Your task to perform on an android device: Open Google Image 0: 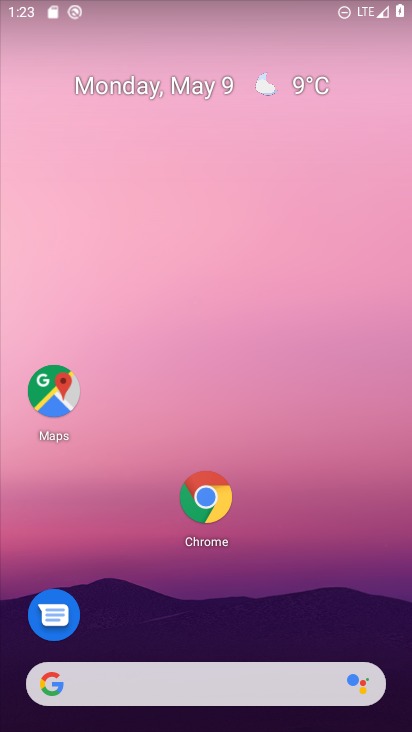
Step 0: drag from (294, 481) to (196, 133)
Your task to perform on an android device: Open Google Image 1: 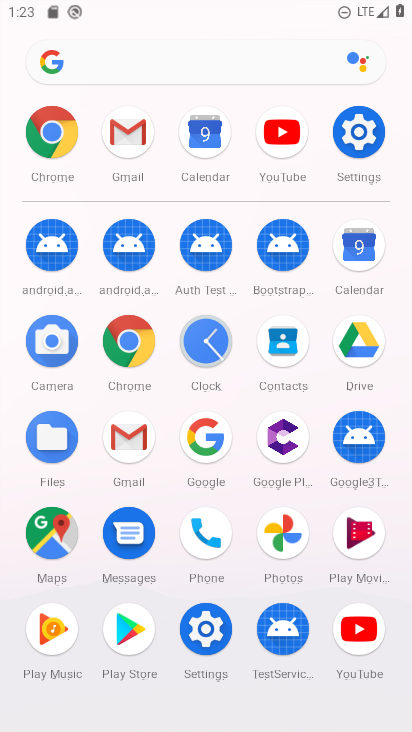
Step 1: click (204, 442)
Your task to perform on an android device: Open Google Image 2: 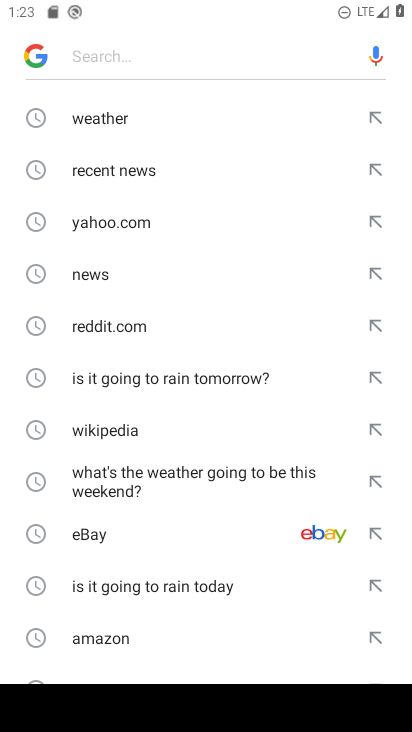
Step 2: task complete